Your task to perform on an android device: Play the last video I watched on Youtube Image 0: 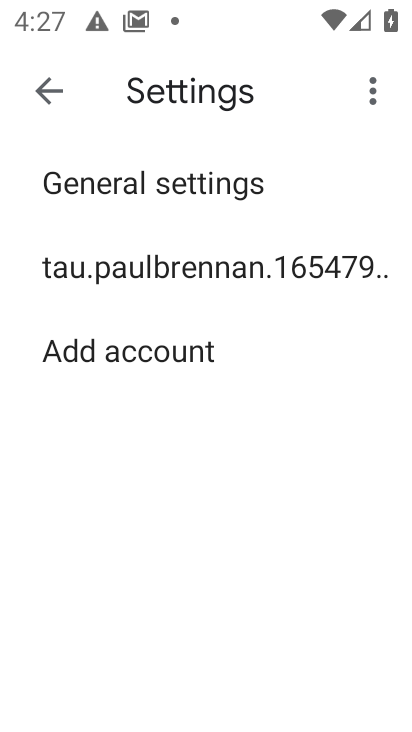
Step 0: press home button
Your task to perform on an android device: Play the last video I watched on Youtube Image 1: 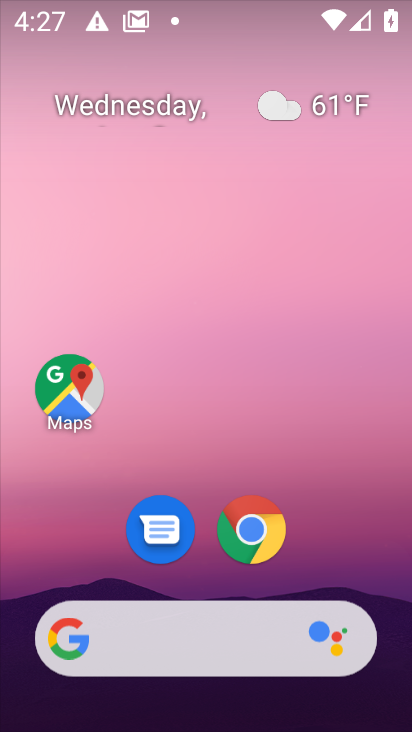
Step 1: drag from (187, 96) to (211, 5)
Your task to perform on an android device: Play the last video I watched on Youtube Image 2: 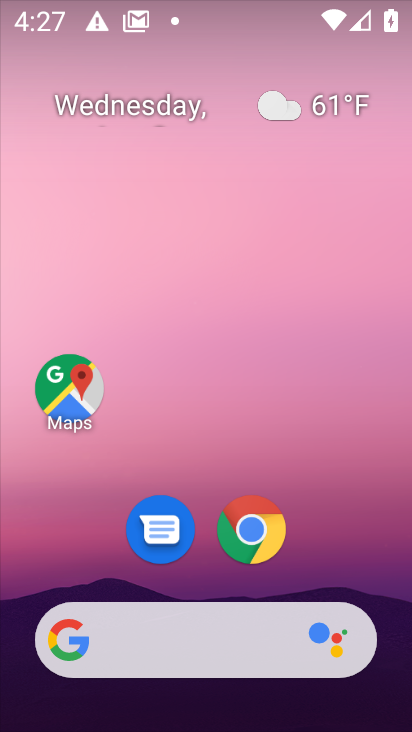
Step 2: drag from (271, 582) to (251, 1)
Your task to perform on an android device: Play the last video I watched on Youtube Image 3: 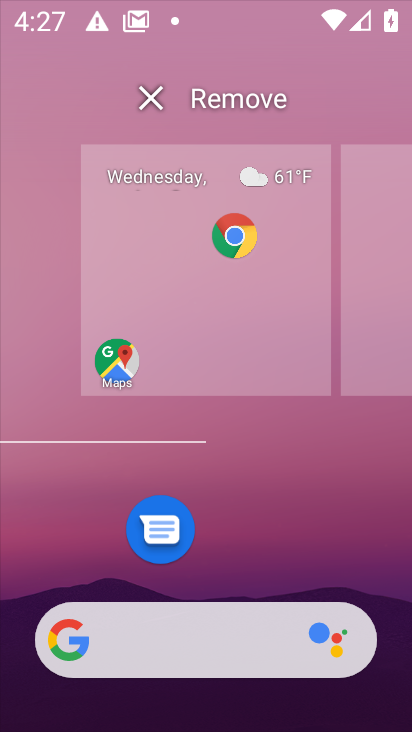
Step 3: click (292, 527)
Your task to perform on an android device: Play the last video I watched on Youtube Image 4: 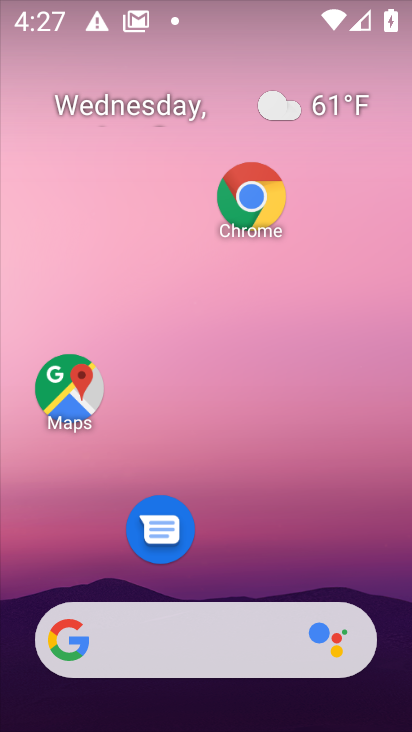
Step 4: drag from (261, 551) to (296, 81)
Your task to perform on an android device: Play the last video I watched on Youtube Image 5: 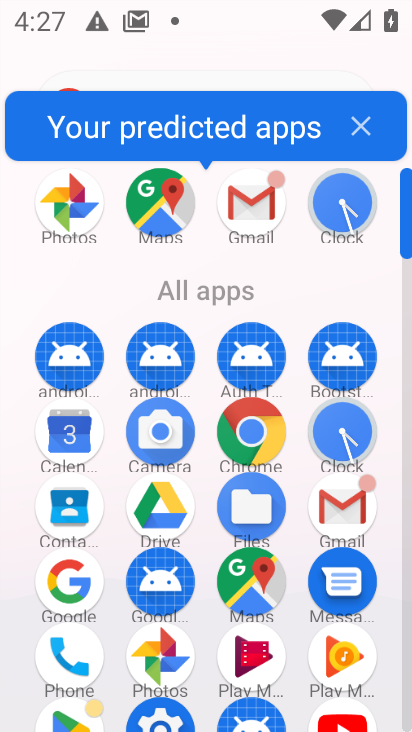
Step 5: drag from (238, 645) to (224, 108)
Your task to perform on an android device: Play the last video I watched on Youtube Image 6: 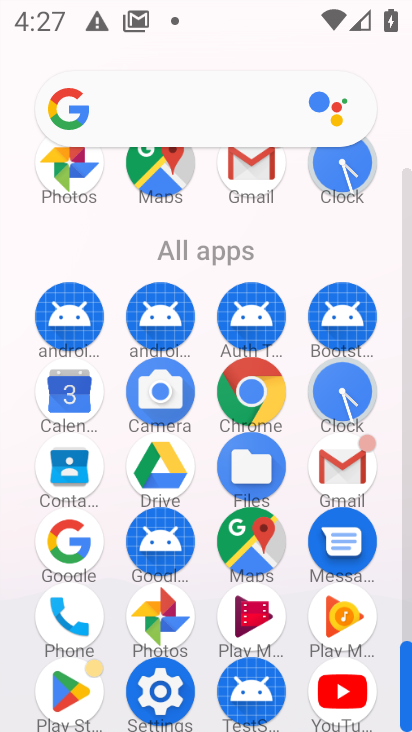
Step 6: click (354, 685)
Your task to perform on an android device: Play the last video I watched on Youtube Image 7: 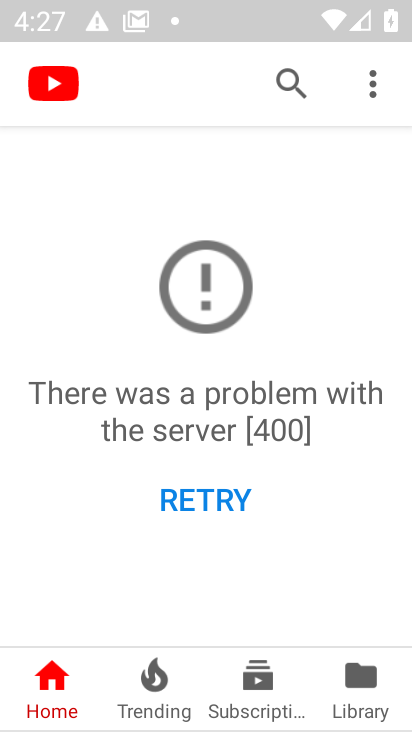
Step 7: click (208, 495)
Your task to perform on an android device: Play the last video I watched on Youtube Image 8: 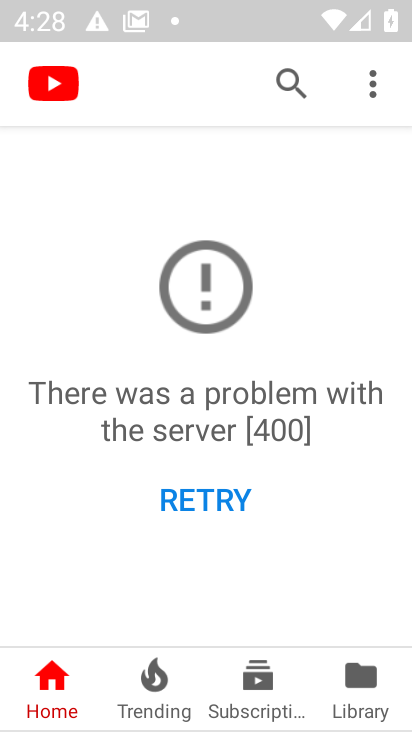
Step 8: click (206, 504)
Your task to perform on an android device: Play the last video I watched on Youtube Image 9: 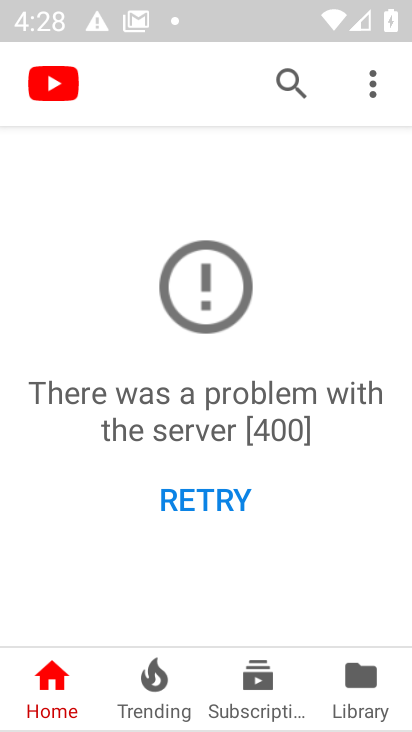
Step 9: task complete